Your task to perform on an android device: open sync settings in chrome Image 0: 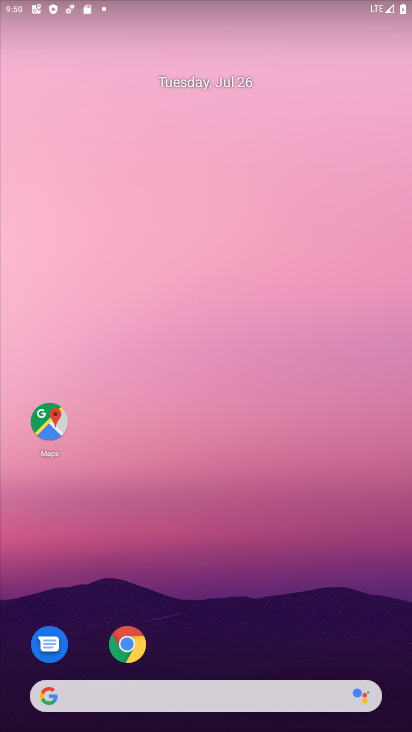
Step 0: click (145, 646)
Your task to perform on an android device: open sync settings in chrome Image 1: 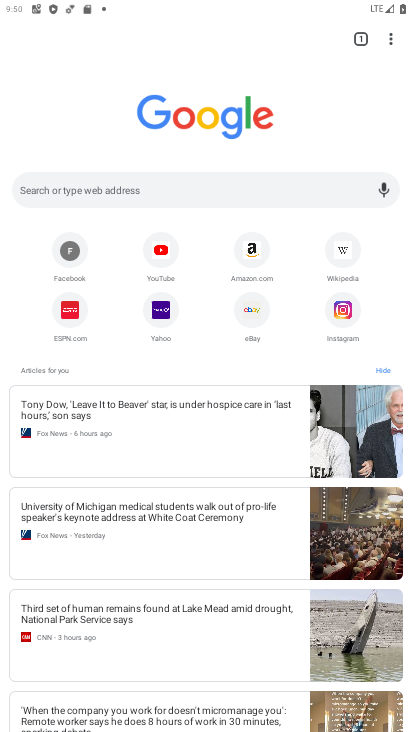
Step 1: drag from (390, 38) to (244, 323)
Your task to perform on an android device: open sync settings in chrome Image 2: 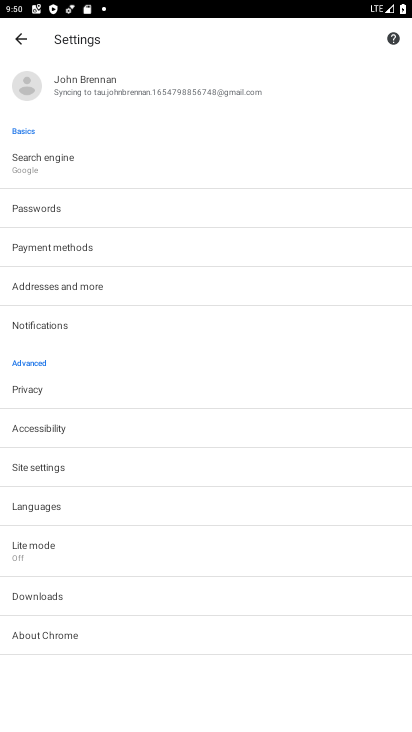
Step 2: click (137, 92)
Your task to perform on an android device: open sync settings in chrome Image 3: 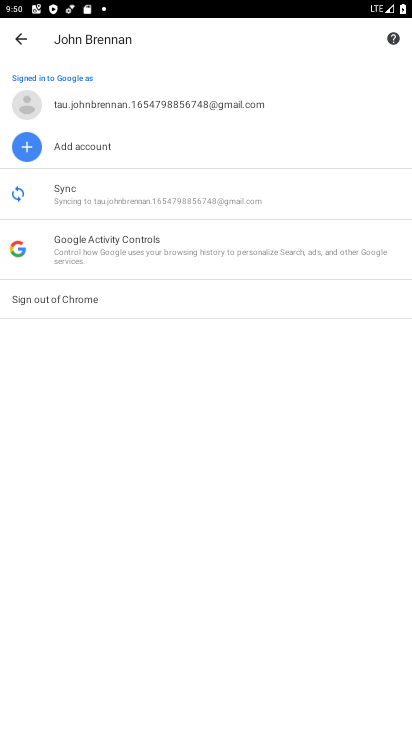
Step 3: click (73, 190)
Your task to perform on an android device: open sync settings in chrome Image 4: 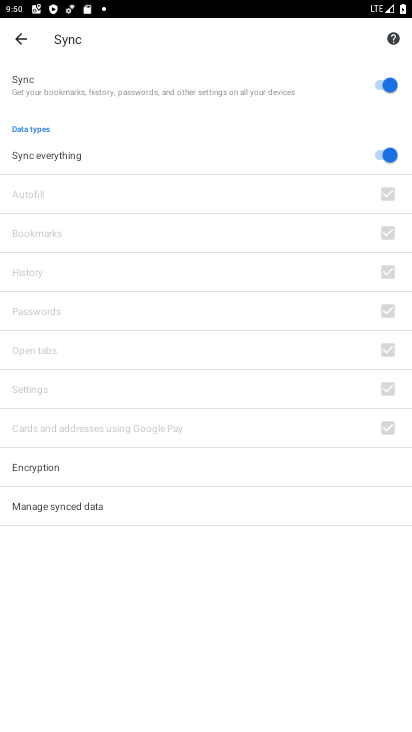
Step 4: task complete